Your task to perform on an android device: turn on sleep mode Image 0: 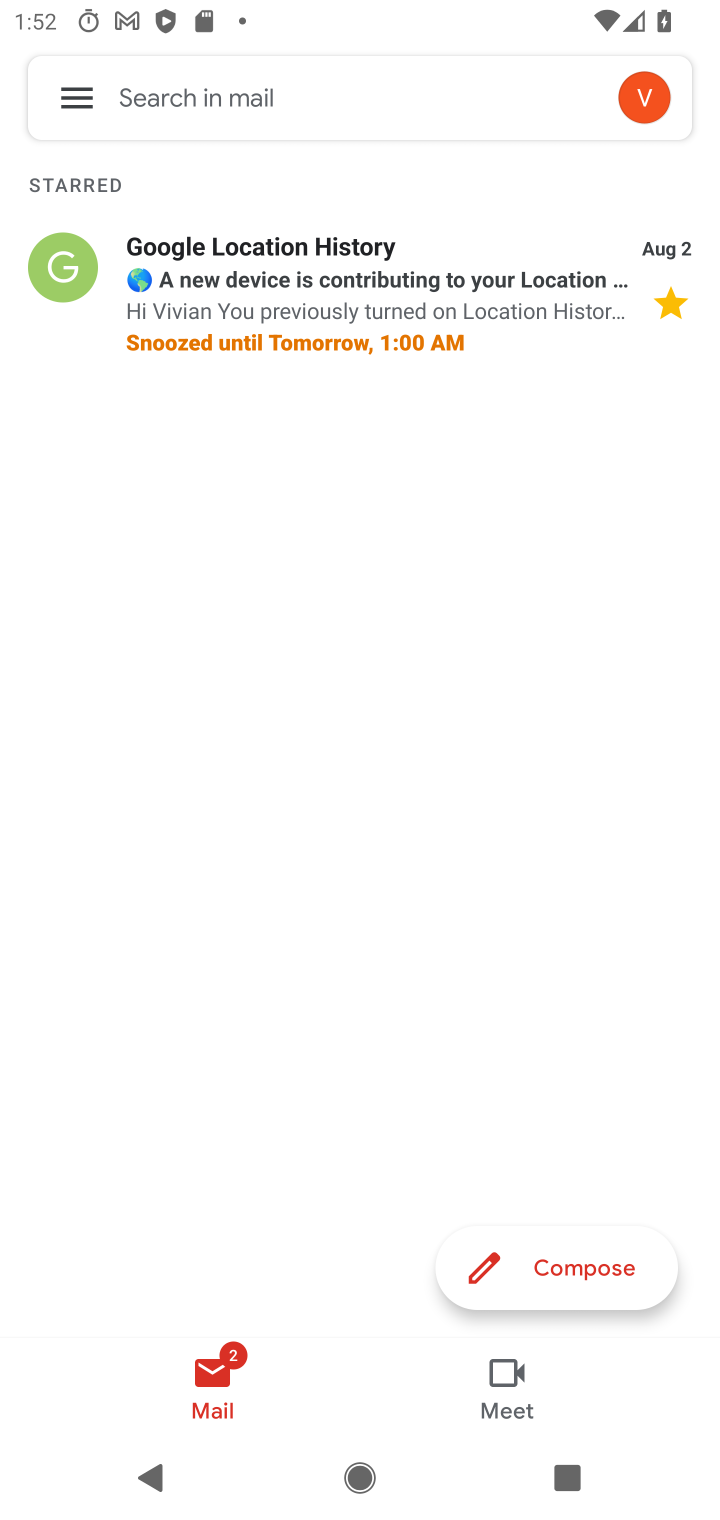
Step 0: press home button
Your task to perform on an android device: turn on sleep mode Image 1: 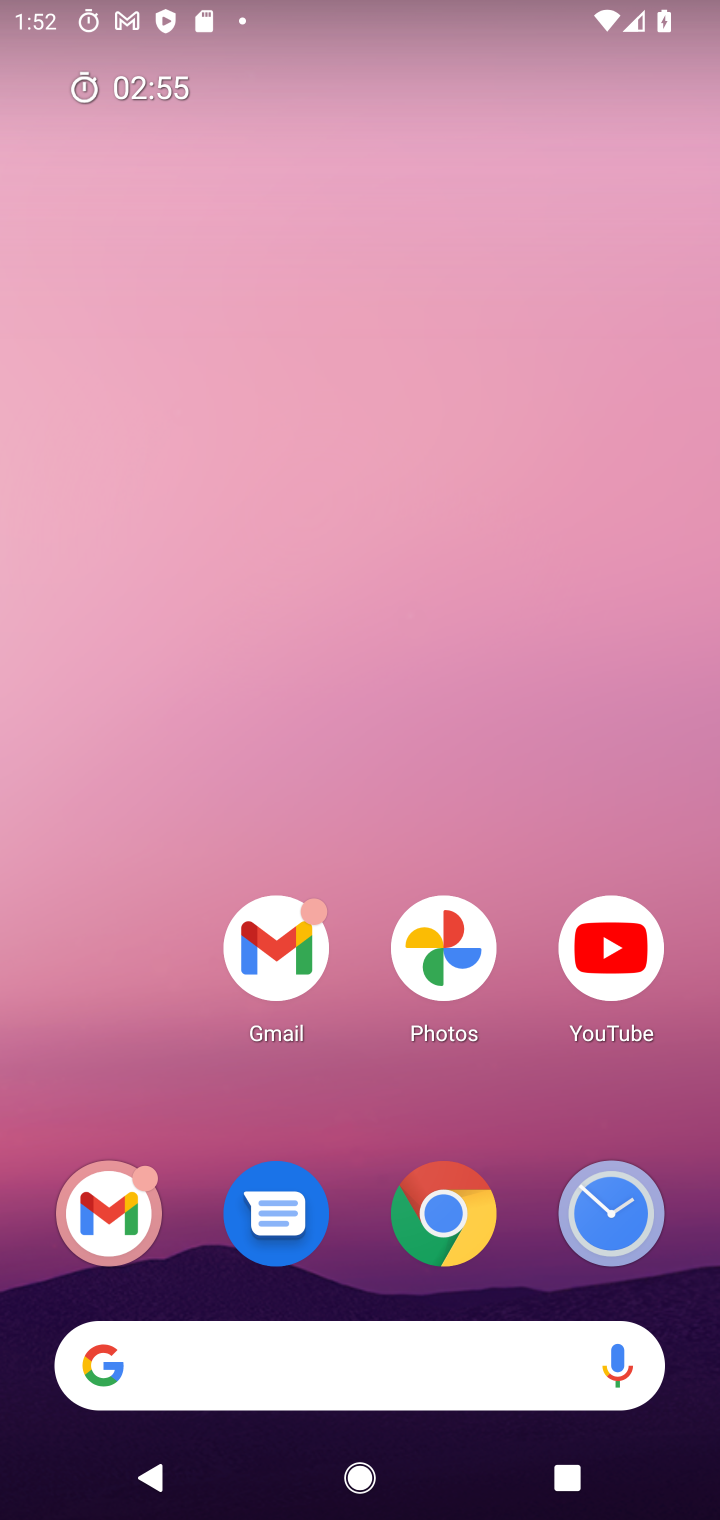
Step 1: drag from (359, 1180) to (476, 34)
Your task to perform on an android device: turn on sleep mode Image 2: 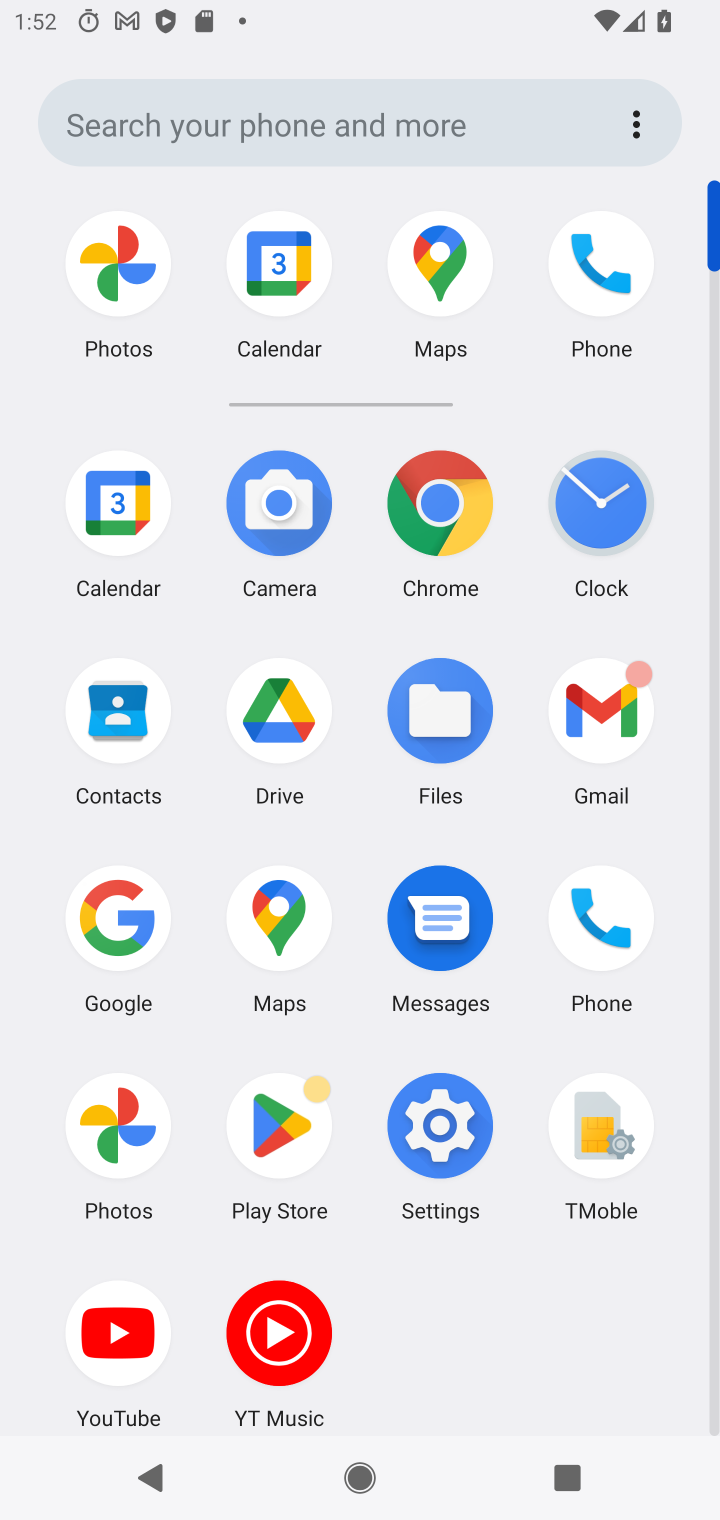
Step 2: click (445, 1138)
Your task to perform on an android device: turn on sleep mode Image 3: 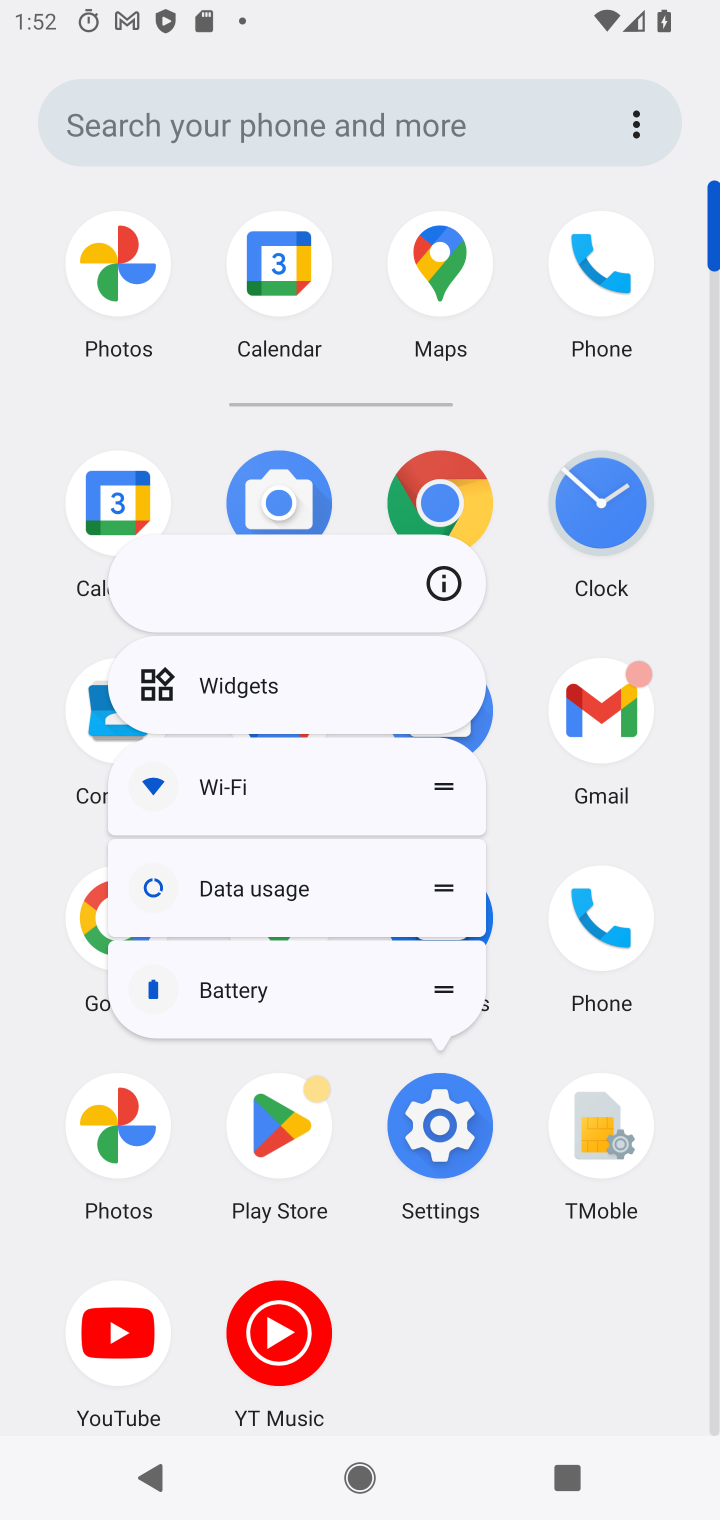
Step 3: click (473, 1152)
Your task to perform on an android device: turn on sleep mode Image 4: 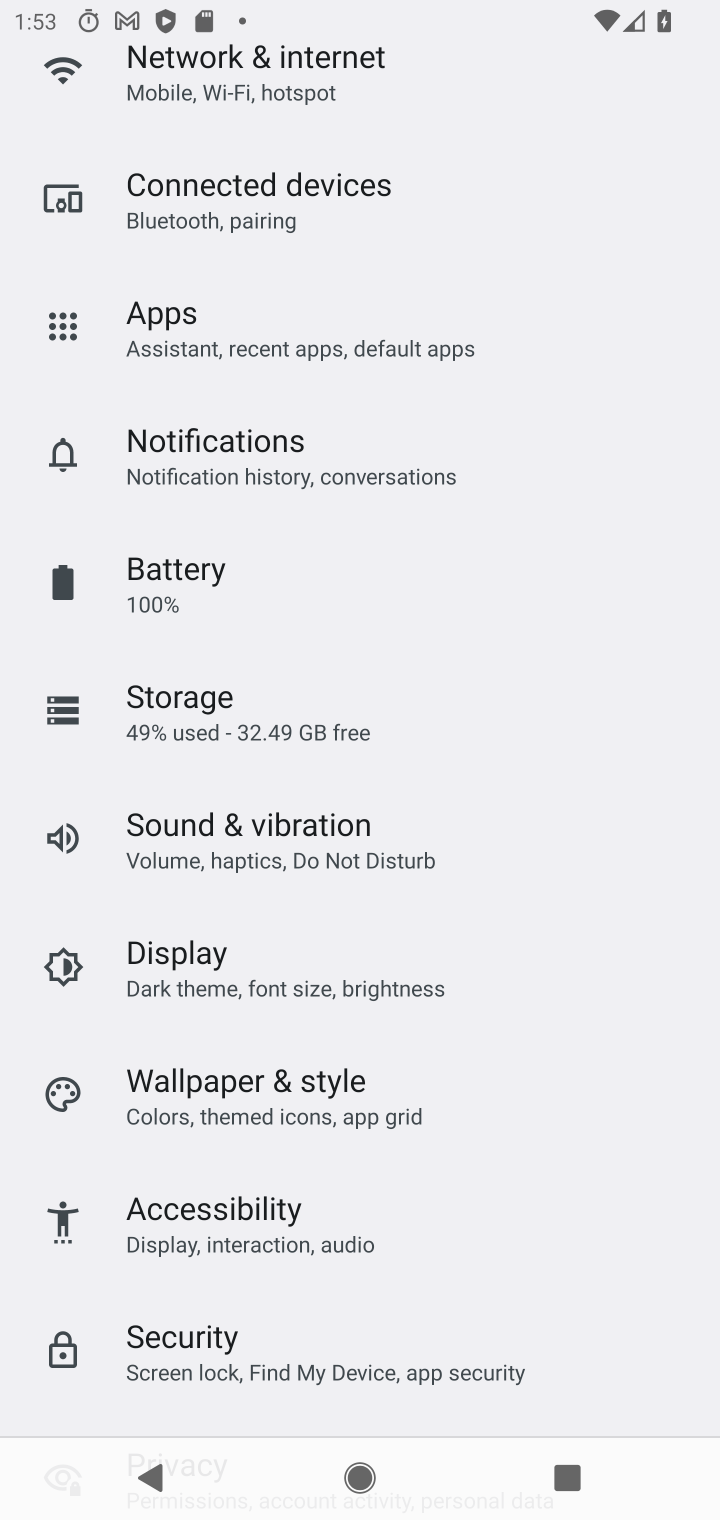
Step 4: drag from (388, 263) to (368, 704)
Your task to perform on an android device: turn on sleep mode Image 5: 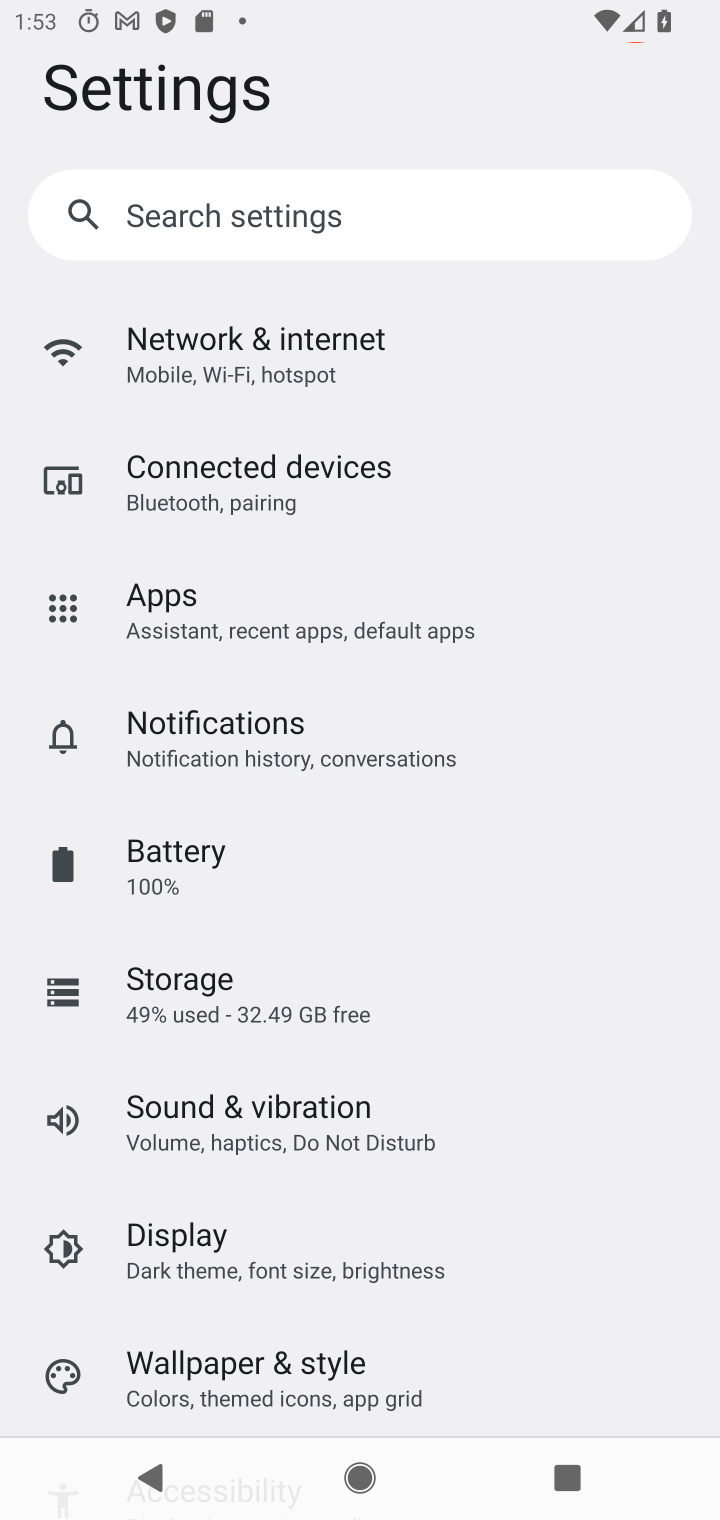
Step 5: click (244, 766)
Your task to perform on an android device: turn on sleep mode Image 6: 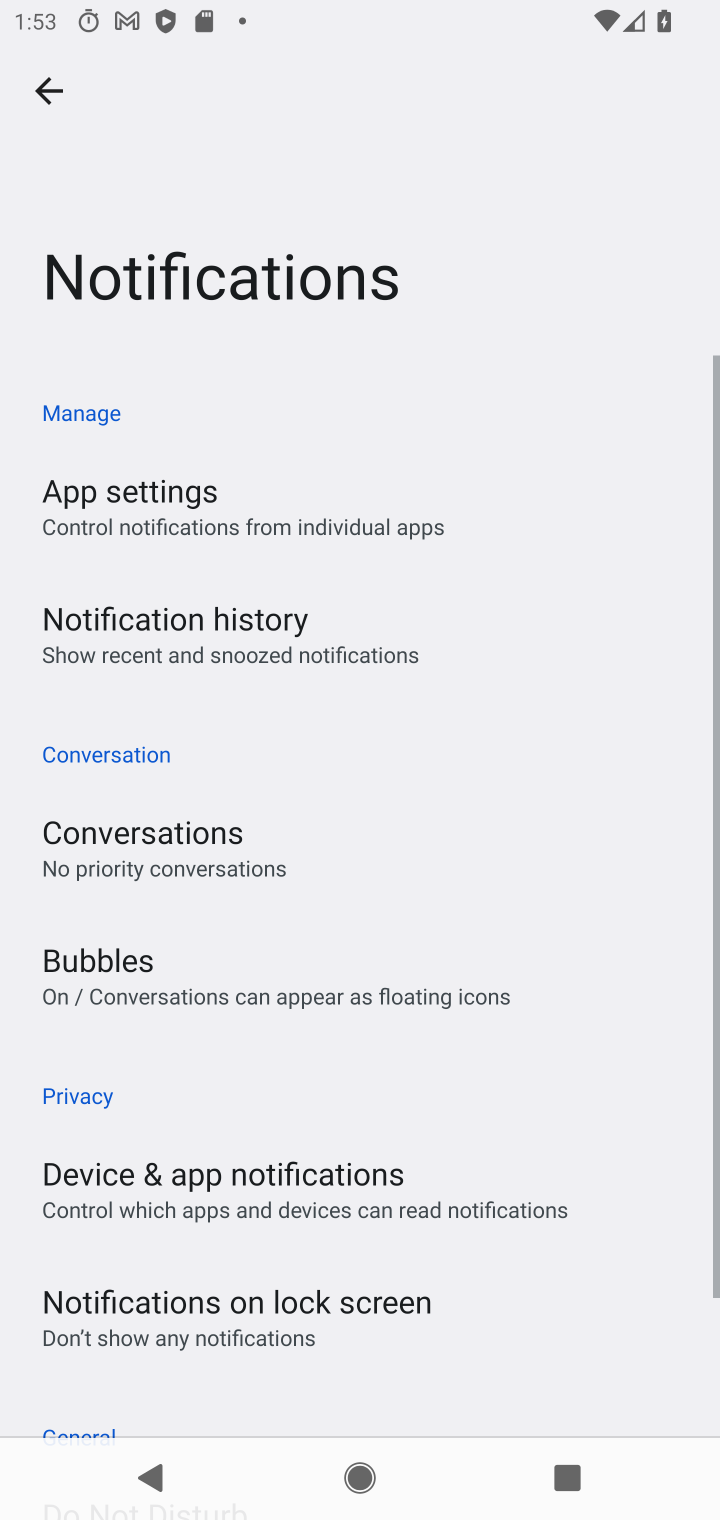
Step 6: task complete